Your task to perform on an android device: toggle improve location accuracy Image 0: 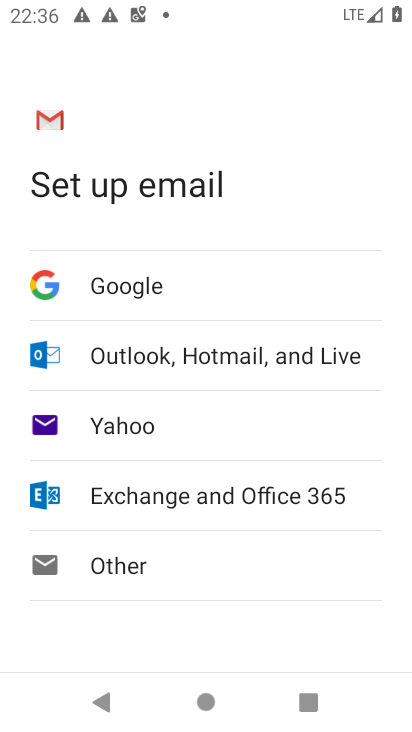
Step 0: press home button
Your task to perform on an android device: toggle improve location accuracy Image 1: 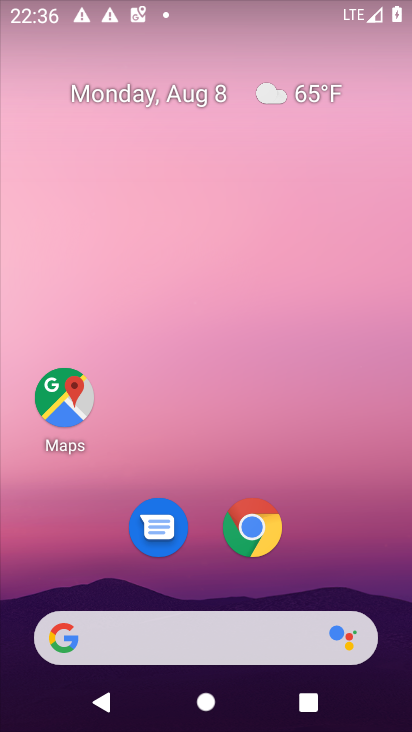
Step 1: drag from (396, 702) to (328, 197)
Your task to perform on an android device: toggle improve location accuracy Image 2: 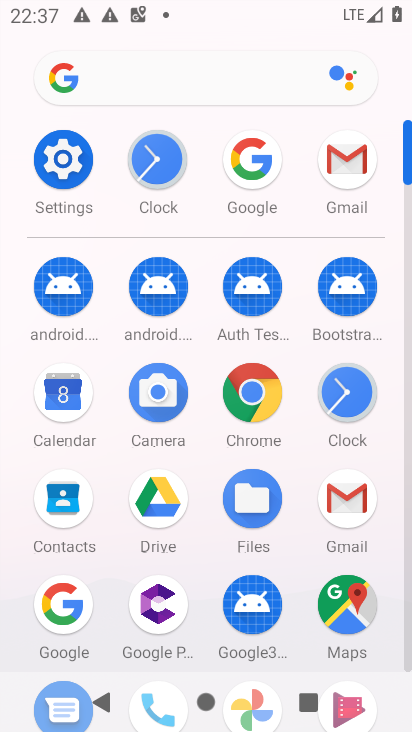
Step 2: click (70, 159)
Your task to perform on an android device: toggle improve location accuracy Image 3: 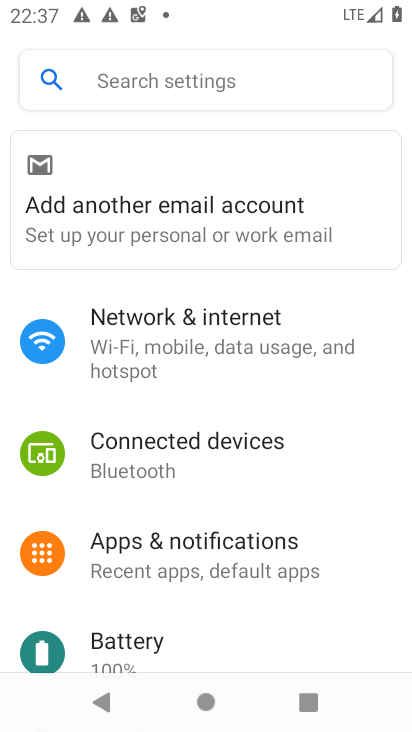
Step 3: drag from (284, 631) to (268, 282)
Your task to perform on an android device: toggle improve location accuracy Image 4: 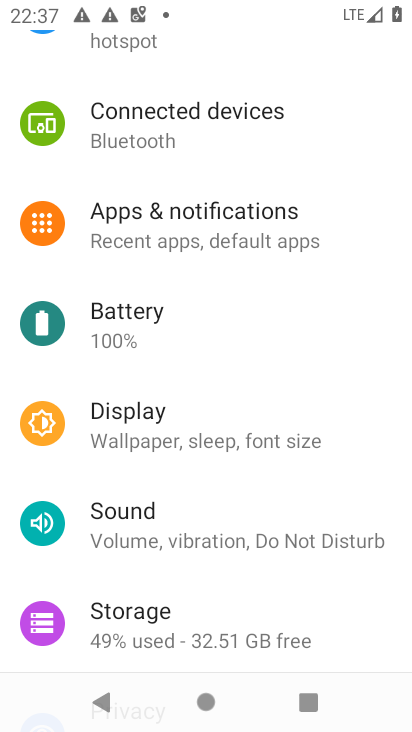
Step 4: drag from (277, 570) to (290, 270)
Your task to perform on an android device: toggle improve location accuracy Image 5: 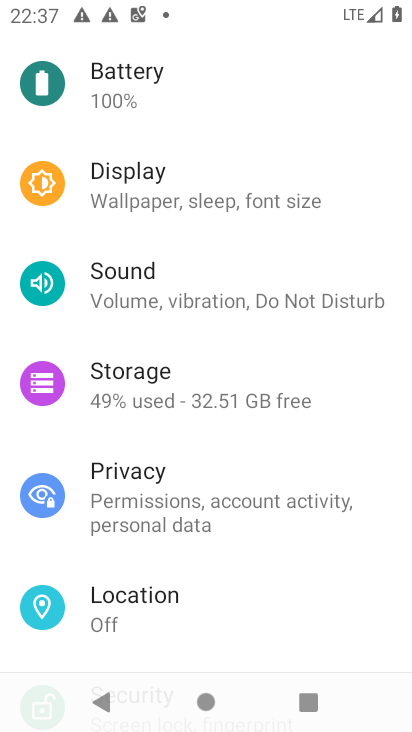
Step 5: click (108, 590)
Your task to perform on an android device: toggle improve location accuracy Image 6: 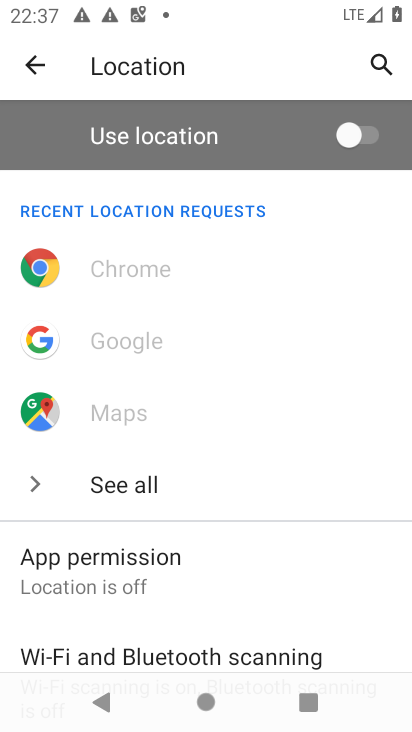
Step 6: drag from (256, 587) to (266, 290)
Your task to perform on an android device: toggle improve location accuracy Image 7: 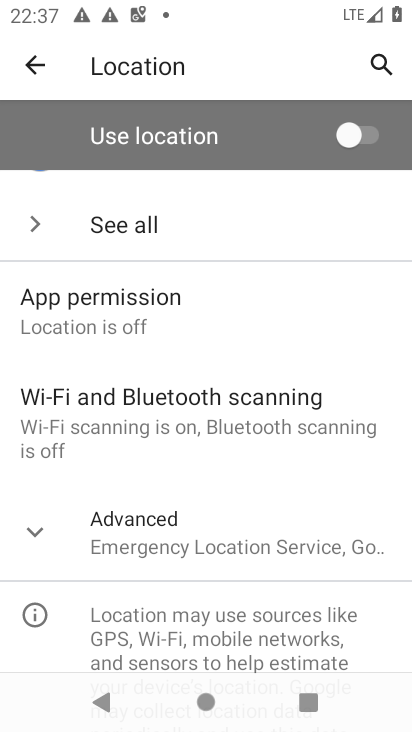
Step 7: click (45, 530)
Your task to perform on an android device: toggle improve location accuracy Image 8: 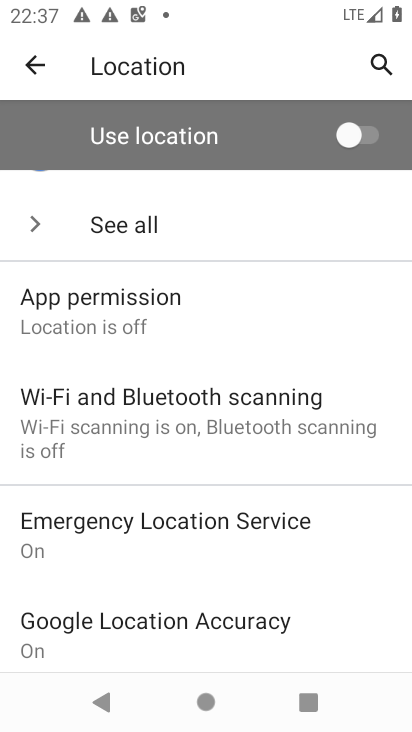
Step 8: drag from (355, 611) to (363, 337)
Your task to perform on an android device: toggle improve location accuracy Image 9: 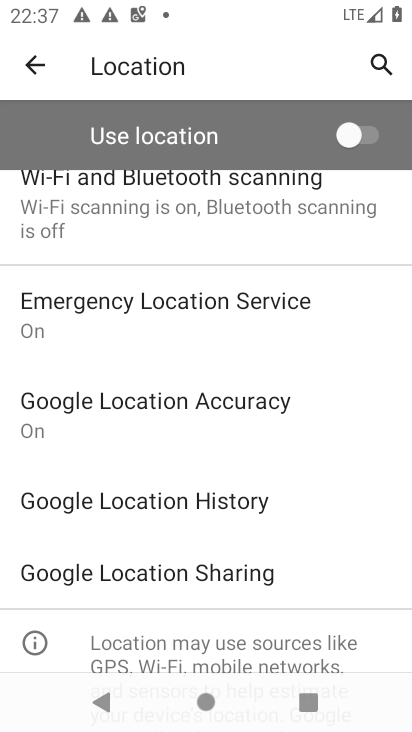
Step 9: click (145, 414)
Your task to perform on an android device: toggle improve location accuracy Image 10: 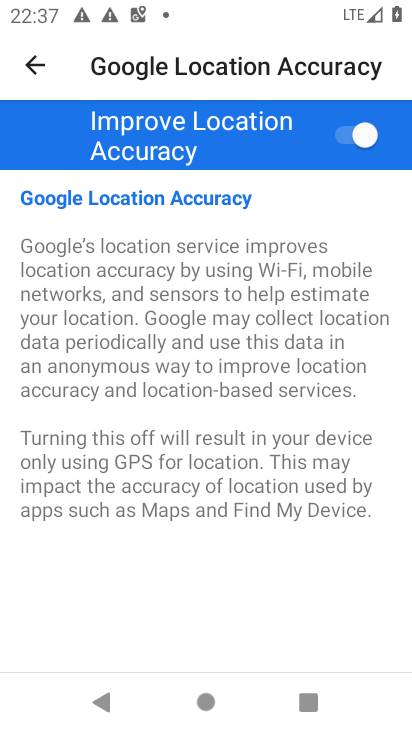
Step 10: click (348, 134)
Your task to perform on an android device: toggle improve location accuracy Image 11: 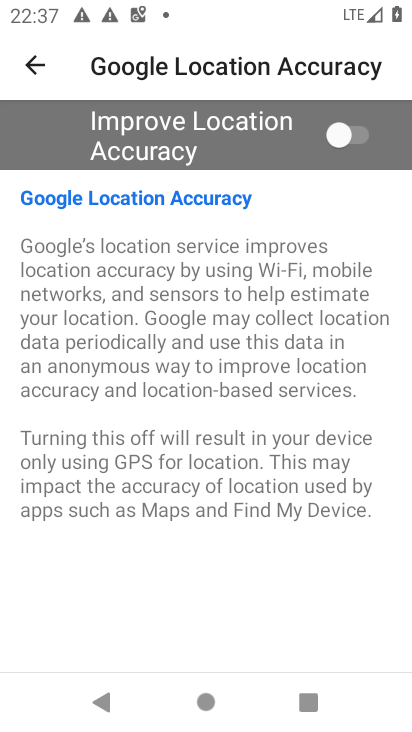
Step 11: task complete